Your task to perform on an android device: delete a single message in the gmail app Image 0: 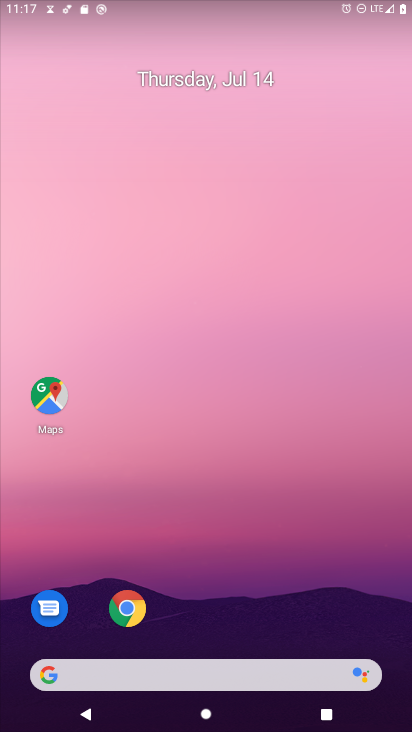
Step 0: drag from (246, 725) to (224, 256)
Your task to perform on an android device: delete a single message in the gmail app Image 1: 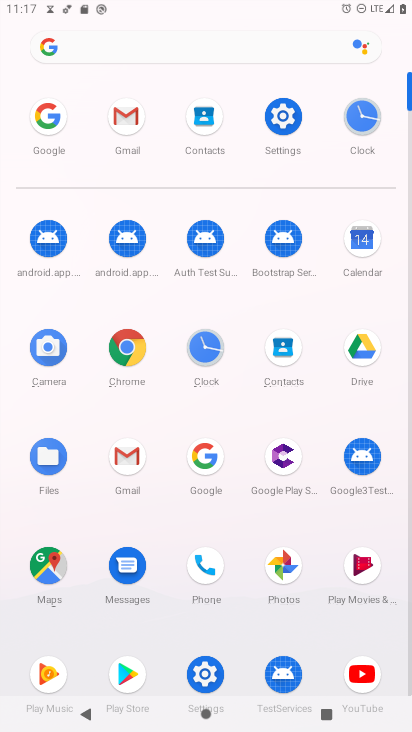
Step 1: click (132, 459)
Your task to perform on an android device: delete a single message in the gmail app Image 2: 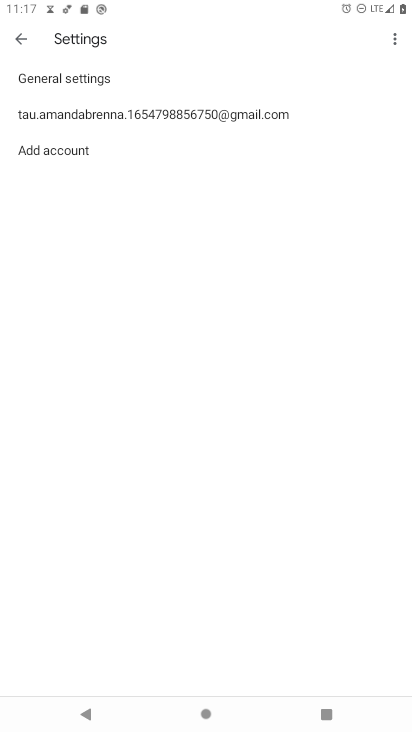
Step 2: click (16, 33)
Your task to perform on an android device: delete a single message in the gmail app Image 3: 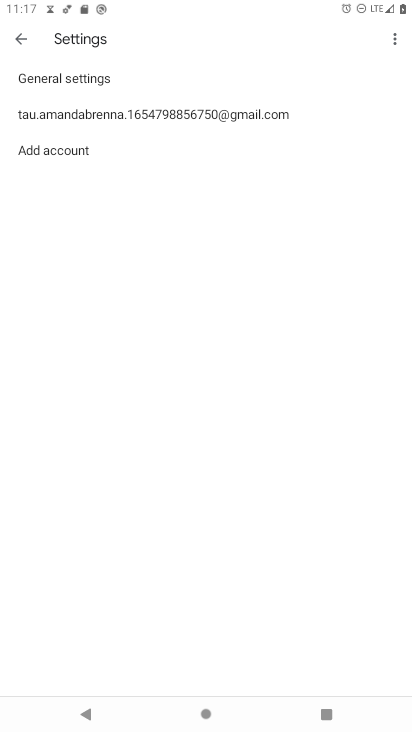
Step 3: click (16, 33)
Your task to perform on an android device: delete a single message in the gmail app Image 4: 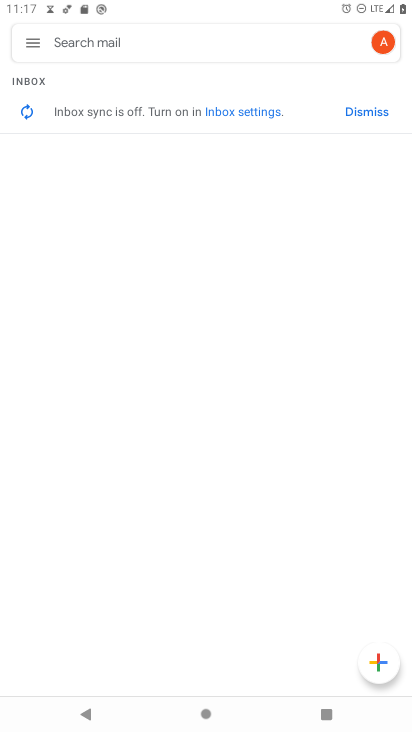
Step 4: task complete